Your task to perform on an android device: Go to privacy settings Image 0: 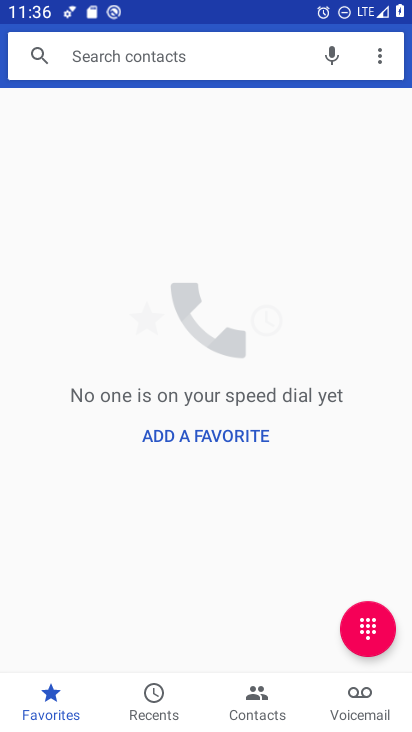
Step 0: press home button
Your task to perform on an android device: Go to privacy settings Image 1: 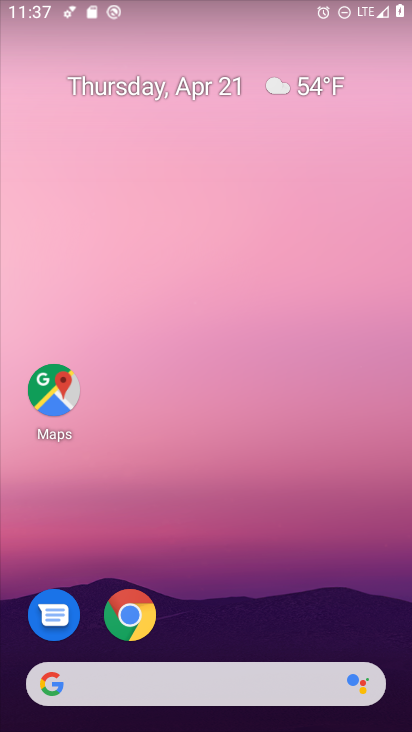
Step 1: click (115, 614)
Your task to perform on an android device: Go to privacy settings Image 2: 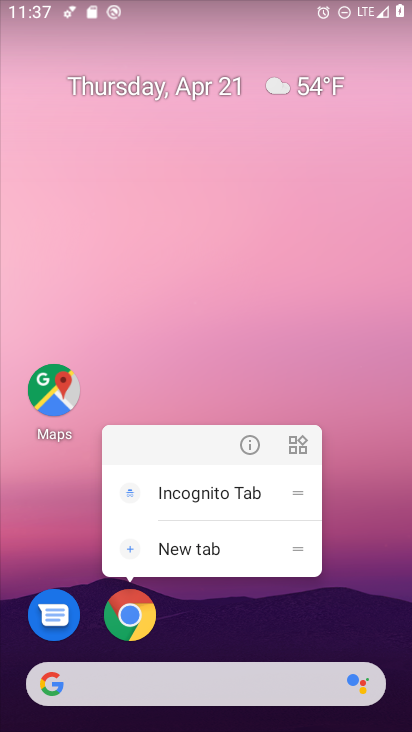
Step 2: click (115, 614)
Your task to perform on an android device: Go to privacy settings Image 3: 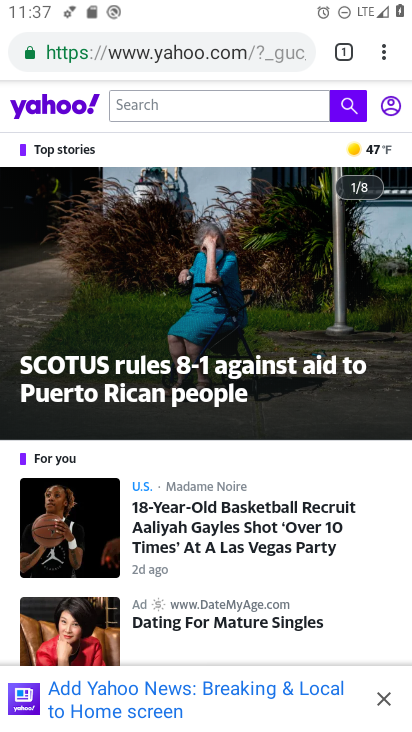
Step 3: click (384, 56)
Your task to perform on an android device: Go to privacy settings Image 4: 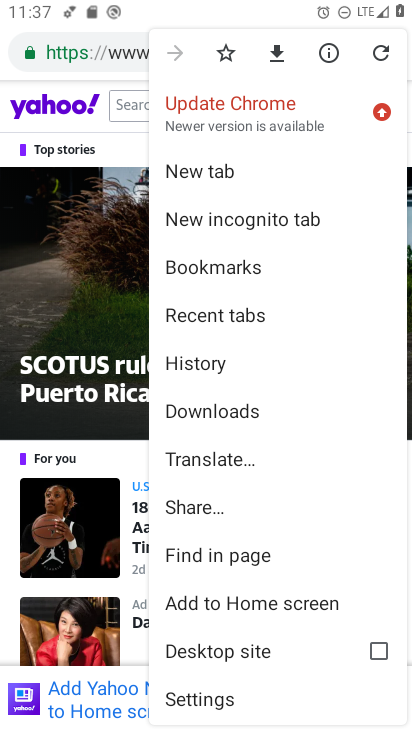
Step 4: click (270, 691)
Your task to perform on an android device: Go to privacy settings Image 5: 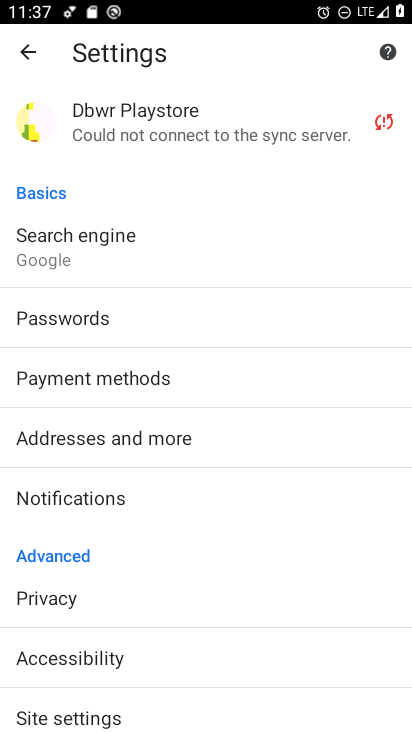
Step 5: click (178, 605)
Your task to perform on an android device: Go to privacy settings Image 6: 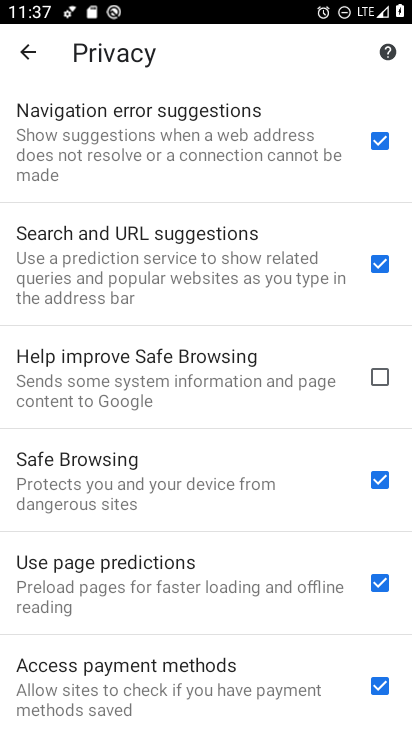
Step 6: task complete